Your task to perform on an android device: check google app version Image 0: 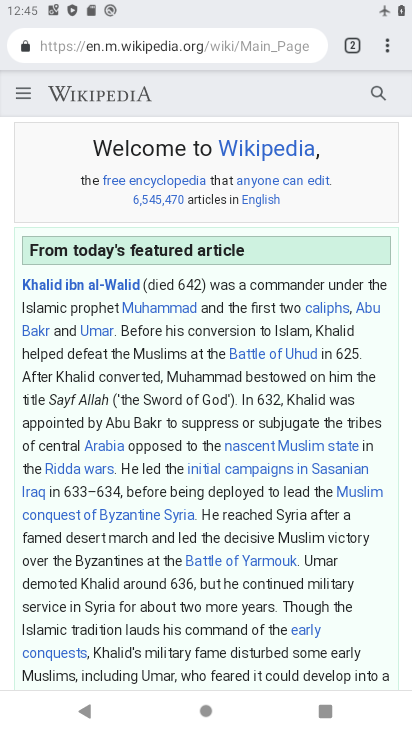
Step 0: press home button
Your task to perform on an android device: check google app version Image 1: 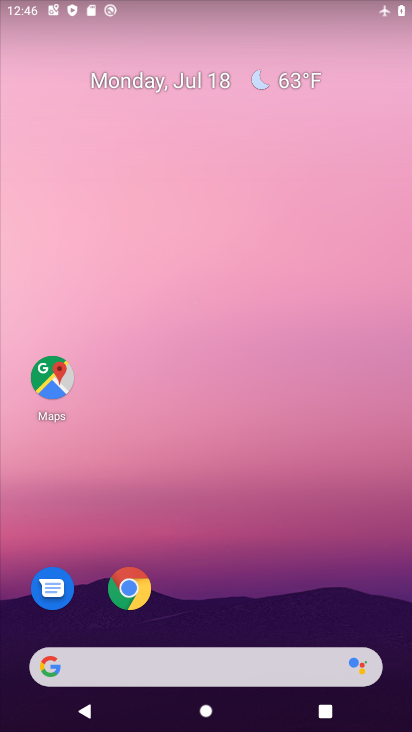
Step 1: drag from (246, 725) to (227, 141)
Your task to perform on an android device: check google app version Image 2: 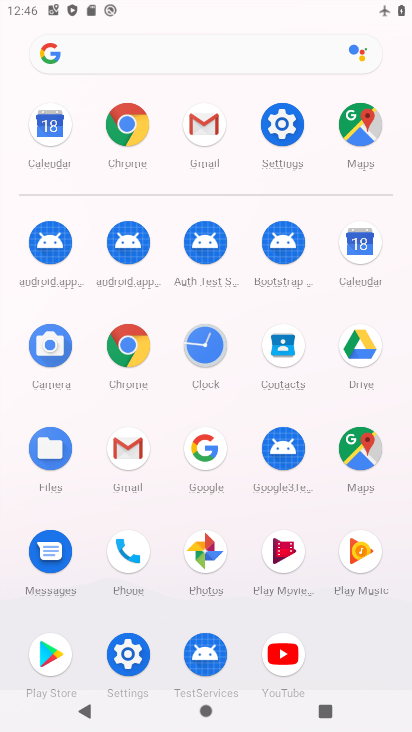
Step 2: click (204, 447)
Your task to perform on an android device: check google app version Image 3: 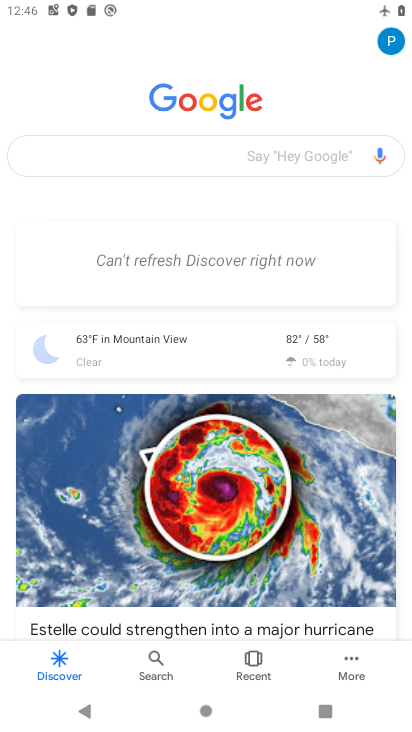
Step 3: click (348, 660)
Your task to perform on an android device: check google app version Image 4: 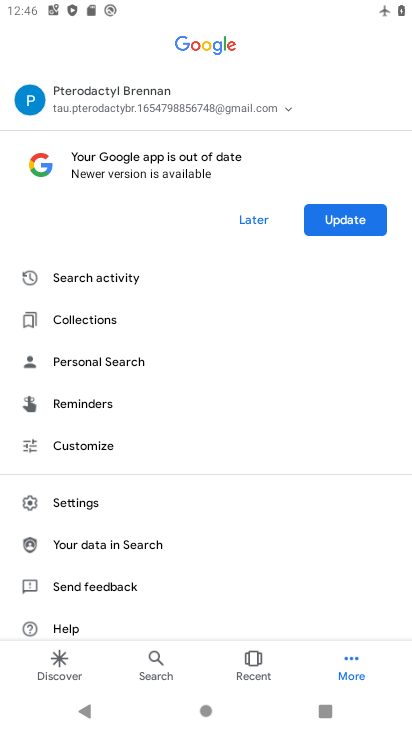
Step 4: click (79, 502)
Your task to perform on an android device: check google app version Image 5: 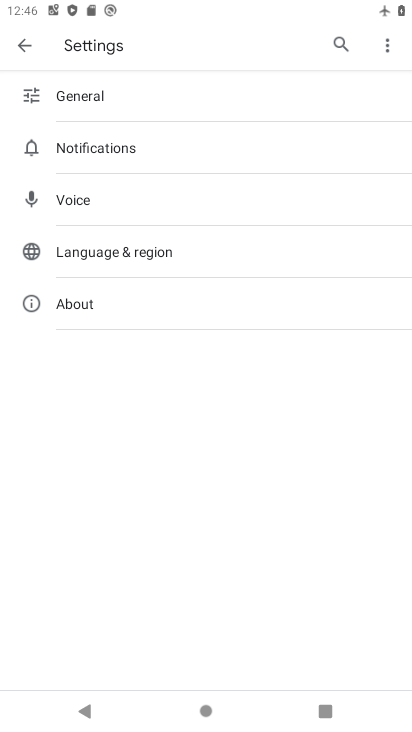
Step 5: click (83, 301)
Your task to perform on an android device: check google app version Image 6: 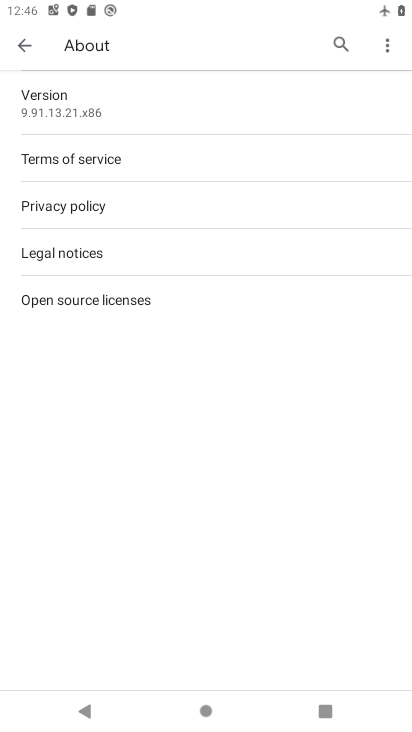
Step 6: task complete